Your task to perform on an android device: Open calendar and show me the fourth week of next month Image 0: 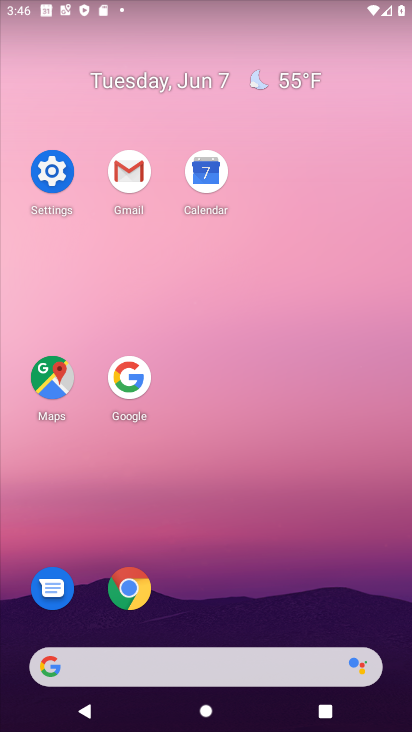
Step 0: click (218, 173)
Your task to perform on an android device: Open calendar and show me the fourth week of next month Image 1: 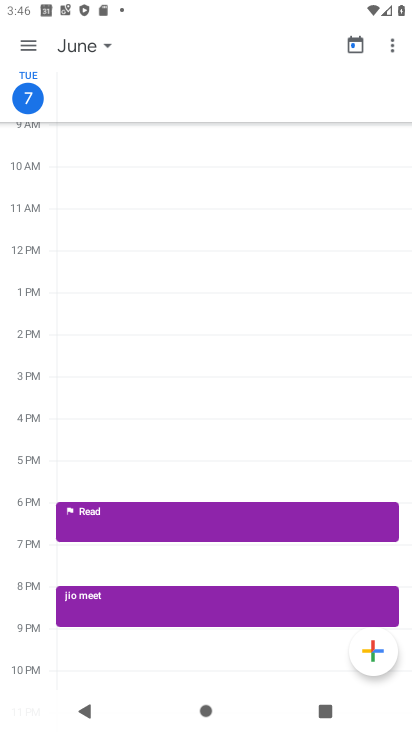
Step 1: click (23, 50)
Your task to perform on an android device: Open calendar and show me the fourth week of next month Image 2: 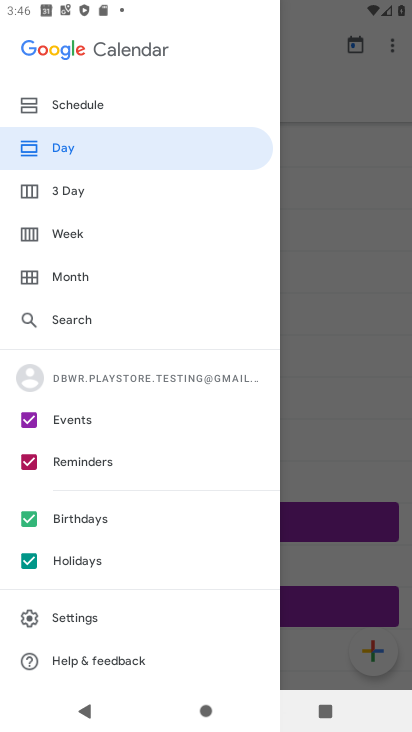
Step 2: click (96, 244)
Your task to perform on an android device: Open calendar and show me the fourth week of next month Image 3: 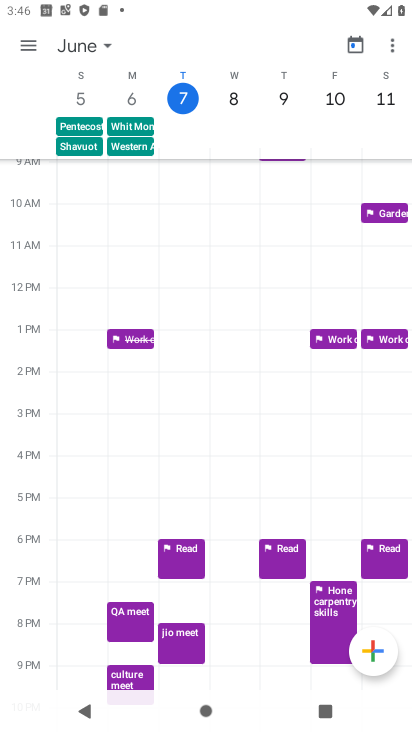
Step 3: task complete